Your task to perform on an android device: Turn off the flashlight Image 0: 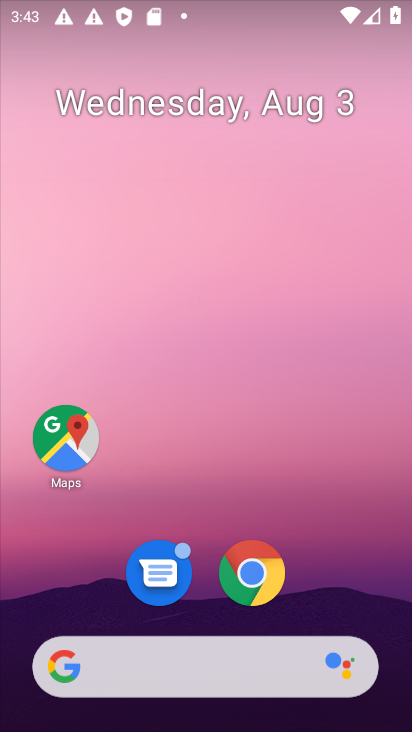
Step 0: drag from (372, 585) to (346, 87)
Your task to perform on an android device: Turn off the flashlight Image 1: 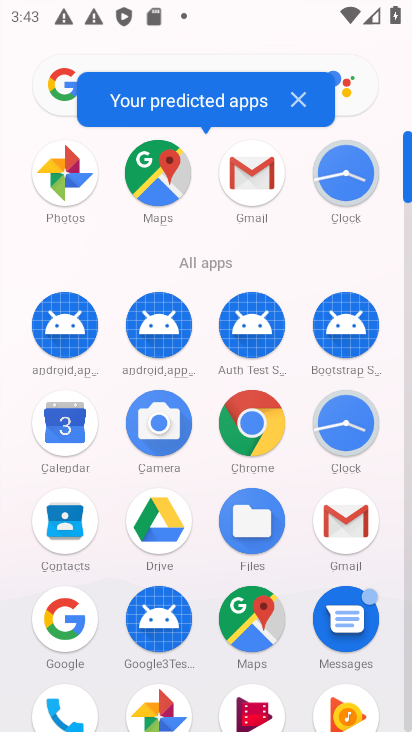
Step 1: drag from (185, 1) to (248, 471)
Your task to perform on an android device: Turn off the flashlight Image 2: 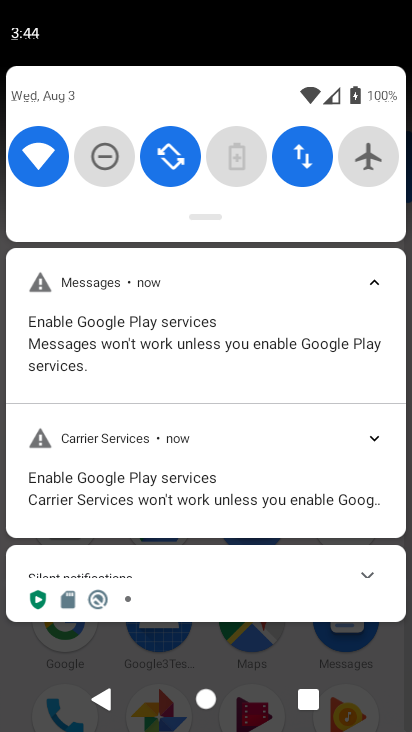
Step 2: drag from (213, 200) to (232, 449)
Your task to perform on an android device: Turn off the flashlight Image 3: 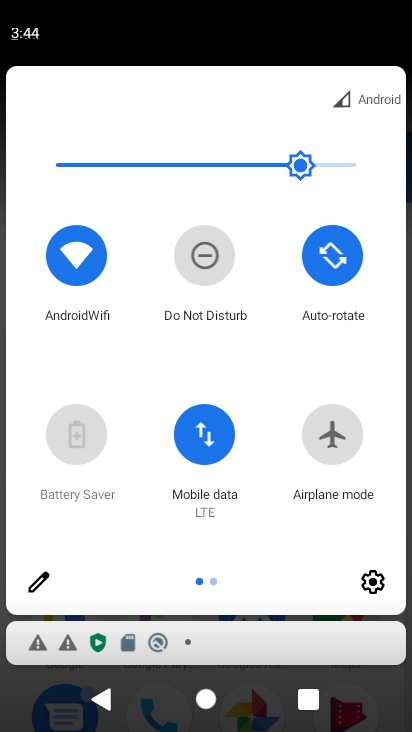
Step 3: click (48, 578)
Your task to perform on an android device: Turn off the flashlight Image 4: 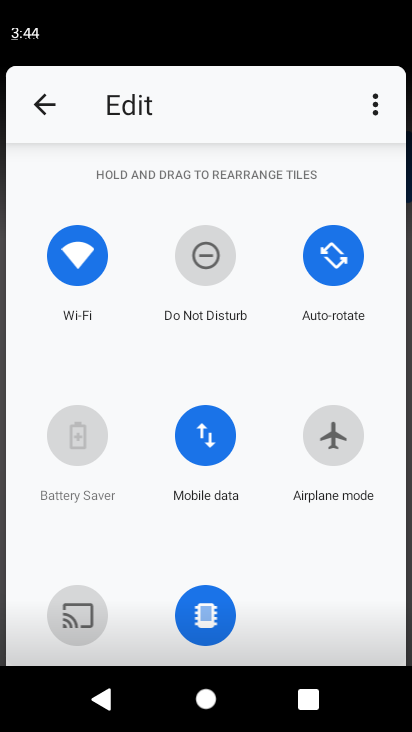
Step 4: task complete